Your task to perform on an android device: turn off data saver in the chrome app Image 0: 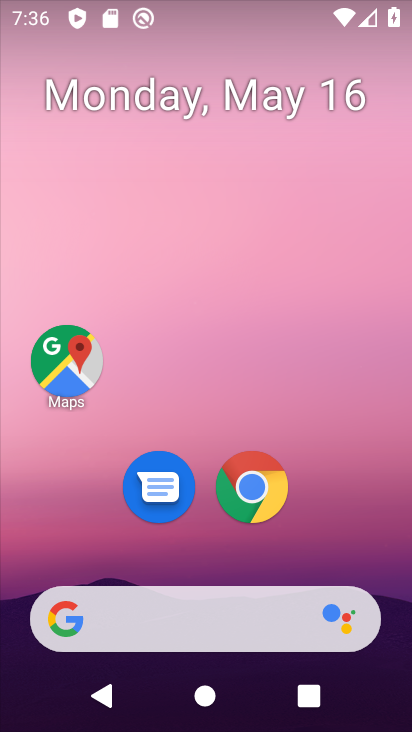
Step 0: click (271, 481)
Your task to perform on an android device: turn off data saver in the chrome app Image 1: 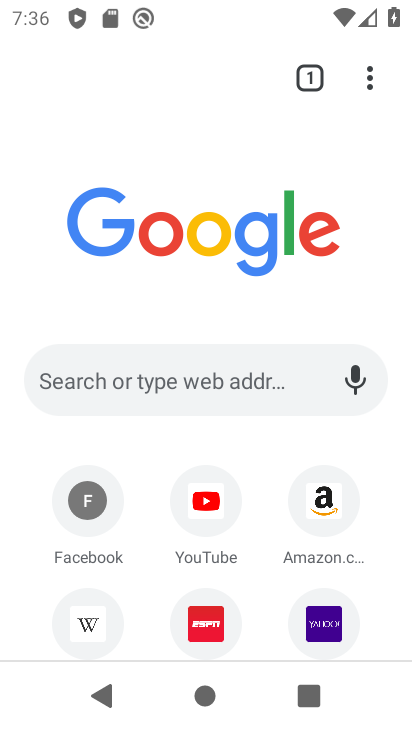
Step 1: click (365, 85)
Your task to perform on an android device: turn off data saver in the chrome app Image 2: 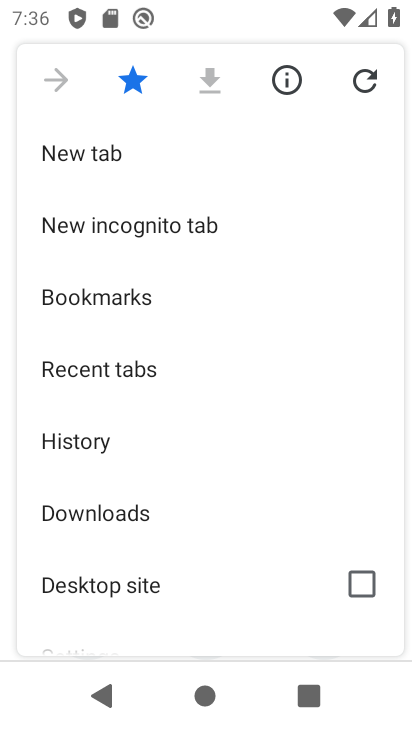
Step 2: drag from (192, 493) to (186, 236)
Your task to perform on an android device: turn off data saver in the chrome app Image 3: 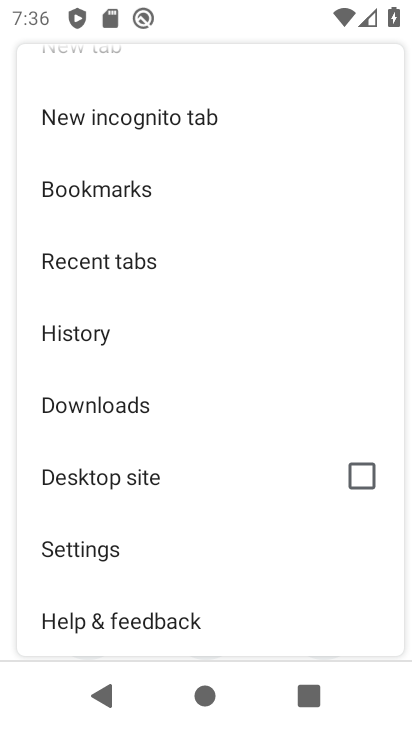
Step 3: click (166, 551)
Your task to perform on an android device: turn off data saver in the chrome app Image 4: 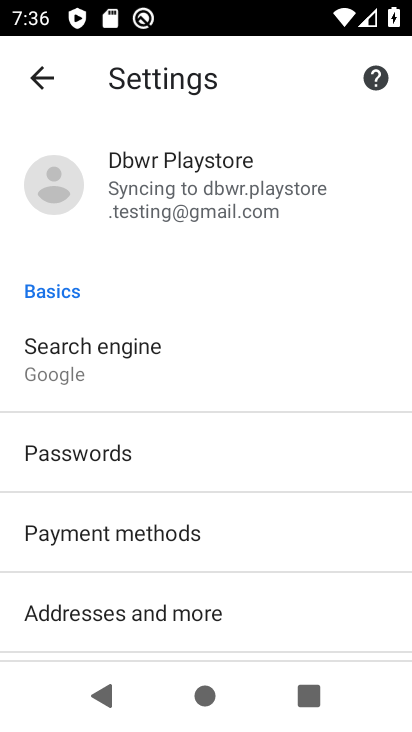
Step 4: drag from (240, 555) to (284, 128)
Your task to perform on an android device: turn off data saver in the chrome app Image 5: 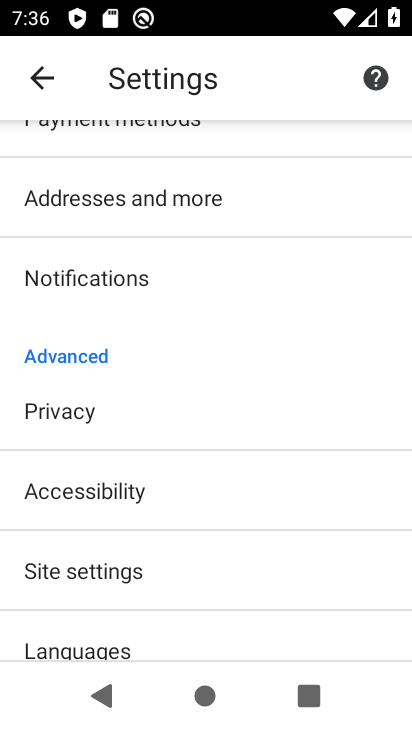
Step 5: drag from (252, 582) to (252, 250)
Your task to perform on an android device: turn off data saver in the chrome app Image 6: 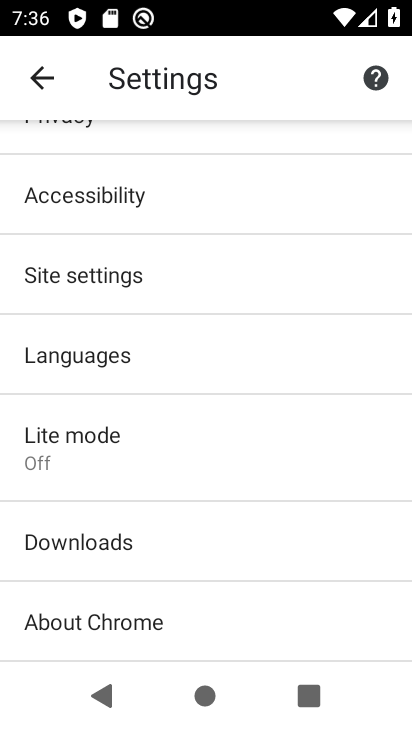
Step 6: click (189, 465)
Your task to perform on an android device: turn off data saver in the chrome app Image 7: 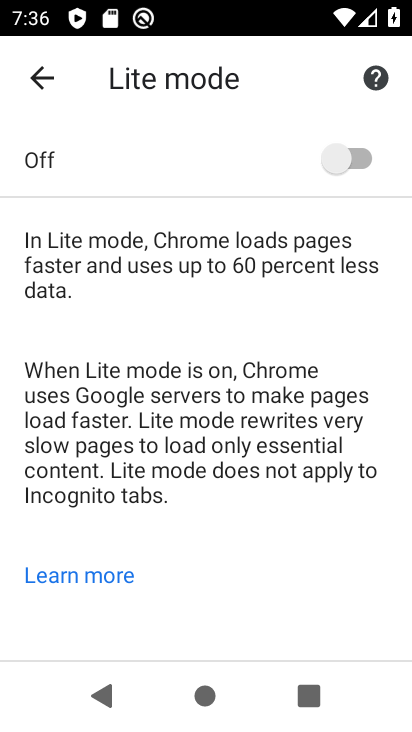
Step 7: task complete